Your task to perform on an android device: Open the calendar app, open the side menu, and click the "Day" option Image 0: 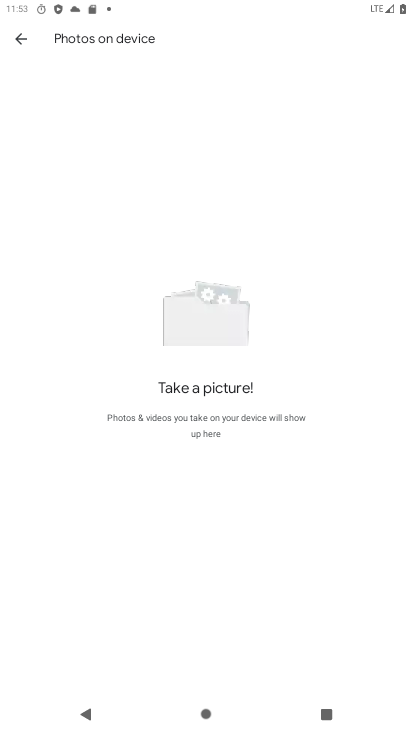
Step 0: press home button
Your task to perform on an android device: Open the calendar app, open the side menu, and click the "Day" option Image 1: 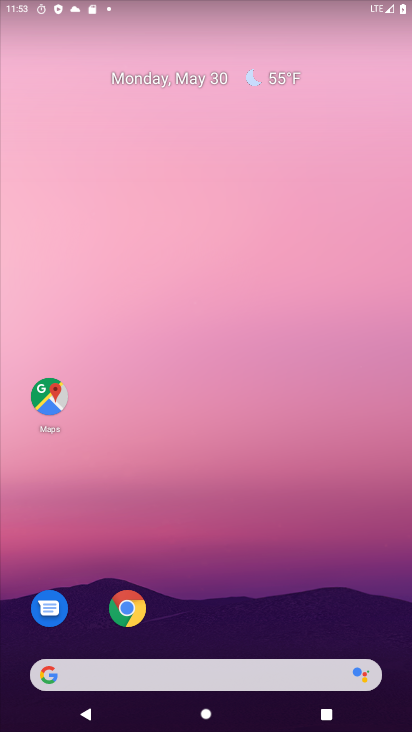
Step 1: drag from (281, 578) to (195, 12)
Your task to perform on an android device: Open the calendar app, open the side menu, and click the "Day" option Image 2: 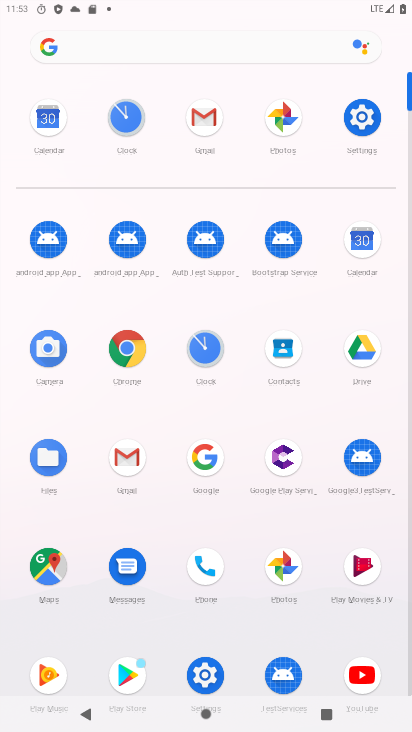
Step 2: click (41, 115)
Your task to perform on an android device: Open the calendar app, open the side menu, and click the "Day" option Image 3: 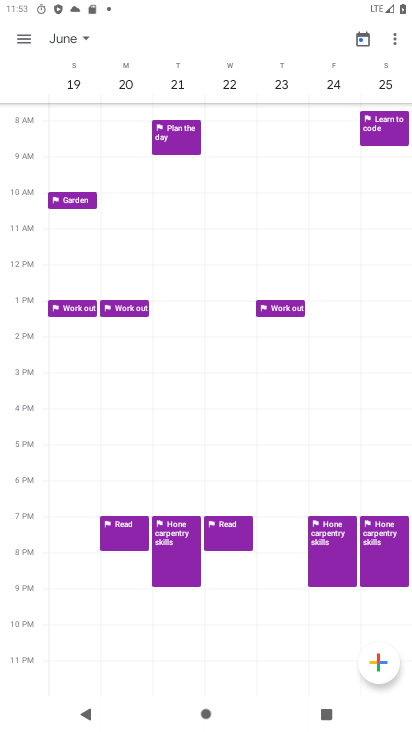
Step 3: click (22, 39)
Your task to perform on an android device: Open the calendar app, open the side menu, and click the "Day" option Image 4: 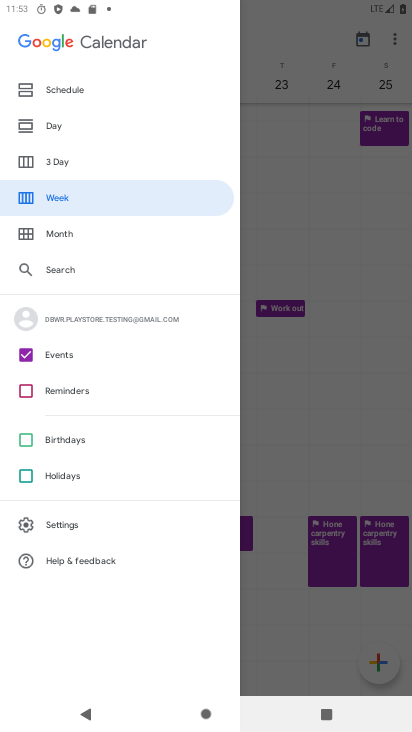
Step 4: click (52, 127)
Your task to perform on an android device: Open the calendar app, open the side menu, and click the "Day" option Image 5: 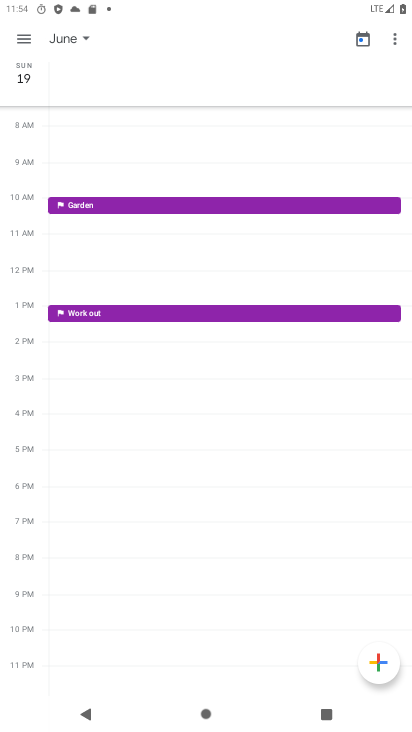
Step 5: task complete